Your task to perform on an android device: Open accessibility settings Image 0: 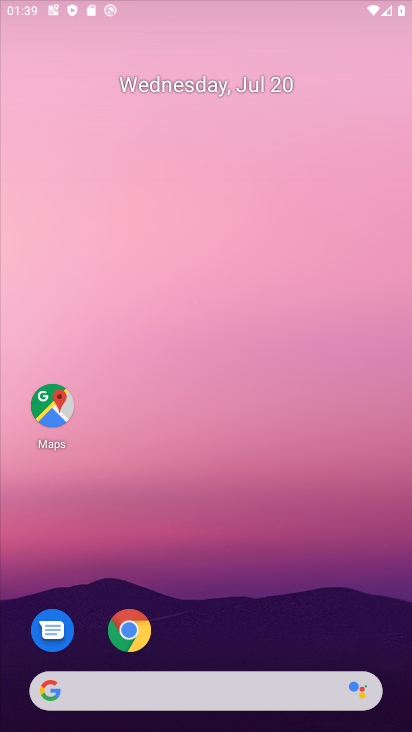
Step 0: drag from (262, 631) to (270, 15)
Your task to perform on an android device: Open accessibility settings Image 1: 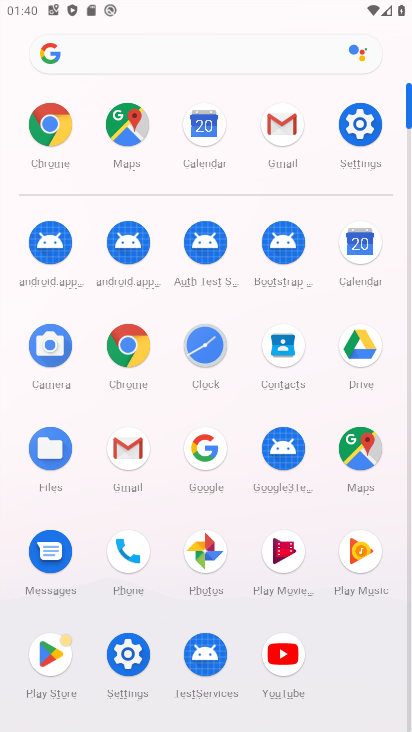
Step 1: click (364, 122)
Your task to perform on an android device: Open accessibility settings Image 2: 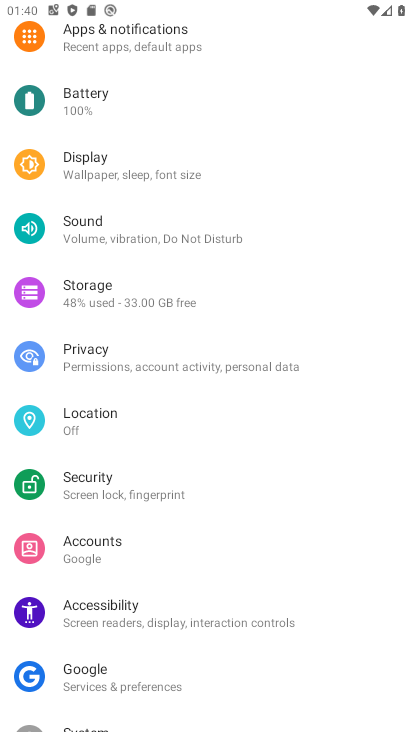
Step 2: click (187, 621)
Your task to perform on an android device: Open accessibility settings Image 3: 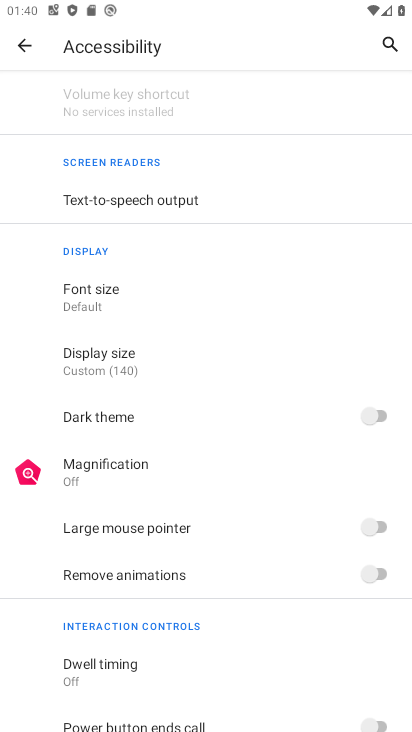
Step 3: task complete